Your task to perform on an android device: Open battery settings Image 0: 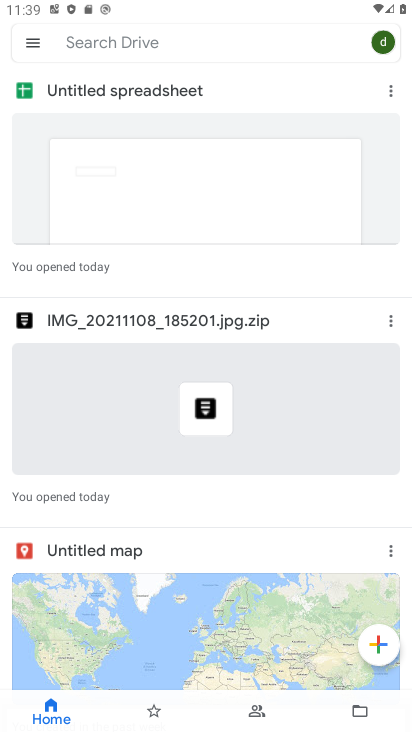
Step 0: press home button
Your task to perform on an android device: Open battery settings Image 1: 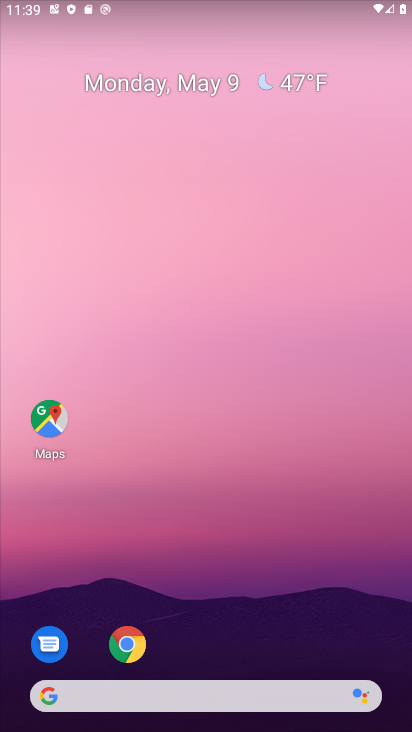
Step 1: drag from (49, 624) to (355, 146)
Your task to perform on an android device: Open battery settings Image 2: 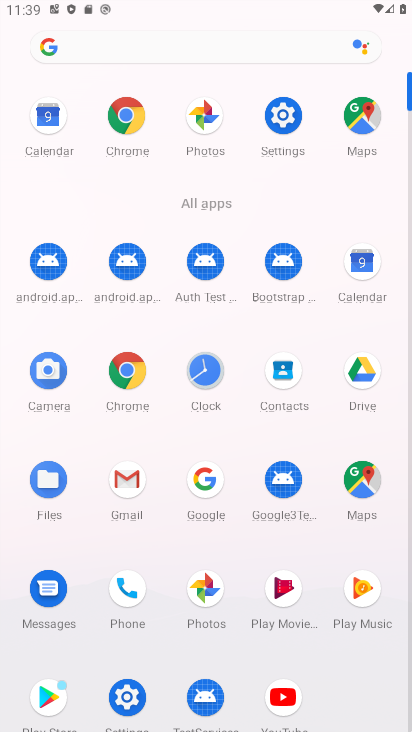
Step 2: click (278, 130)
Your task to perform on an android device: Open battery settings Image 3: 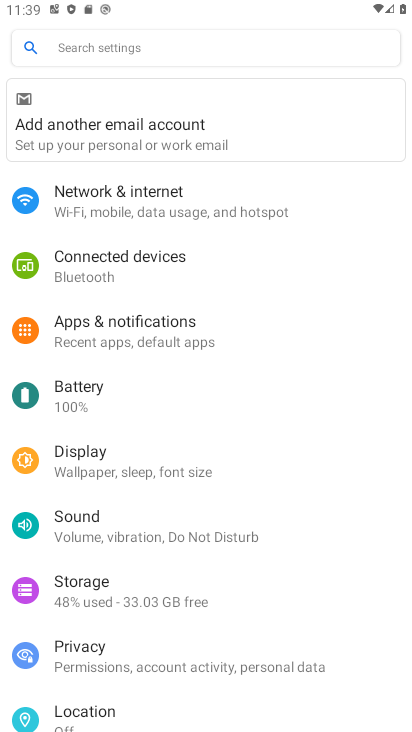
Step 3: click (61, 387)
Your task to perform on an android device: Open battery settings Image 4: 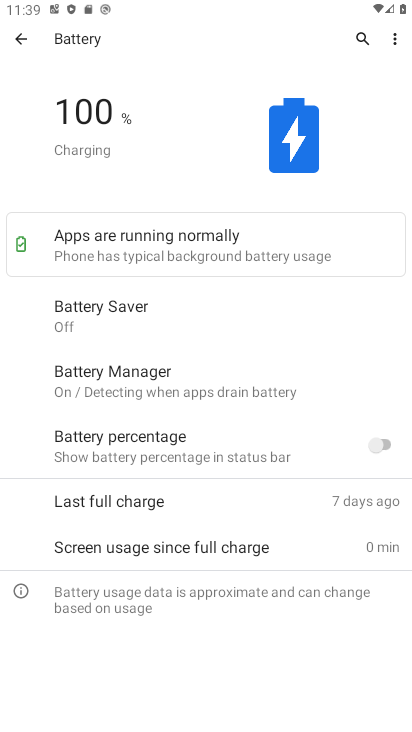
Step 4: task complete